Your task to perform on an android device: delete browsing data in the chrome app Image 0: 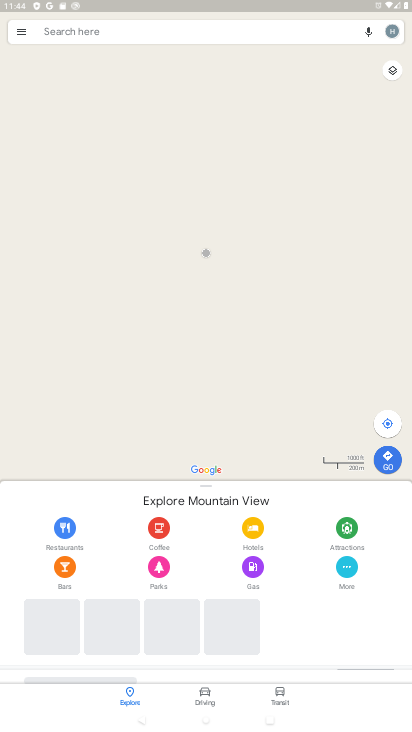
Step 0: press home button
Your task to perform on an android device: delete browsing data in the chrome app Image 1: 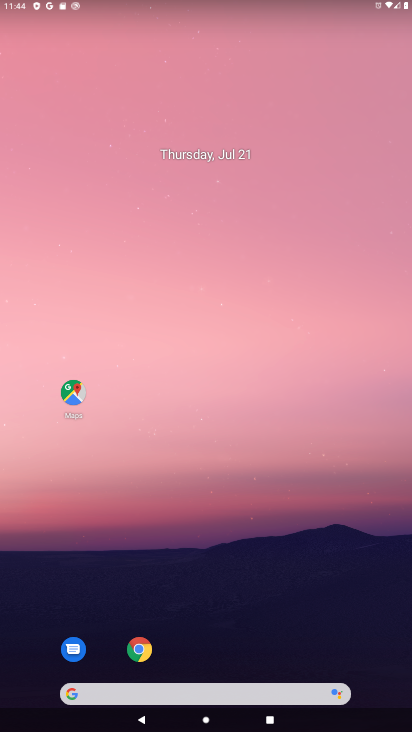
Step 1: drag from (292, 614) to (237, 126)
Your task to perform on an android device: delete browsing data in the chrome app Image 2: 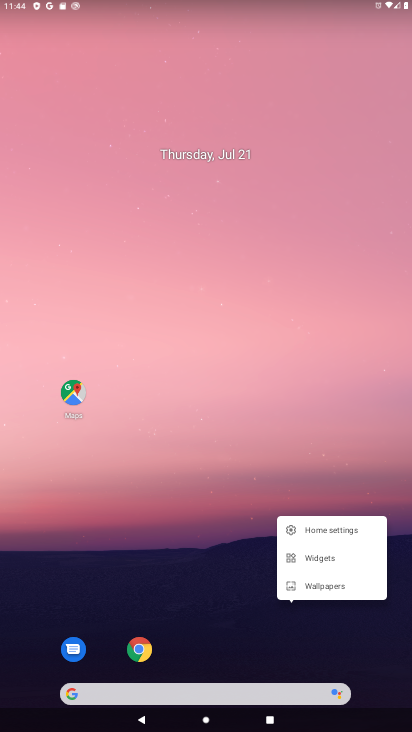
Step 2: click (209, 484)
Your task to perform on an android device: delete browsing data in the chrome app Image 3: 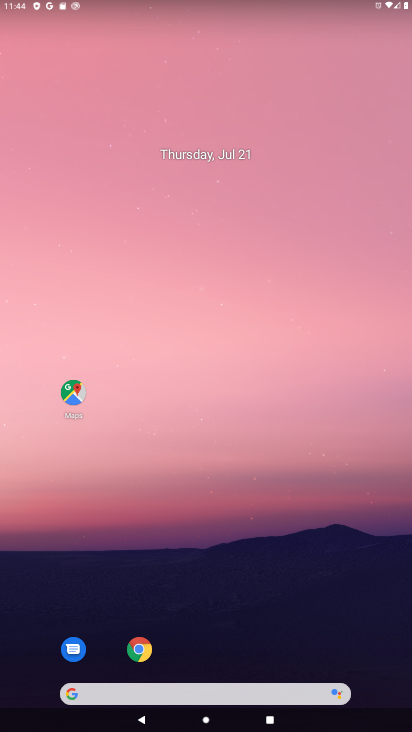
Step 3: drag from (254, 631) to (239, 102)
Your task to perform on an android device: delete browsing data in the chrome app Image 4: 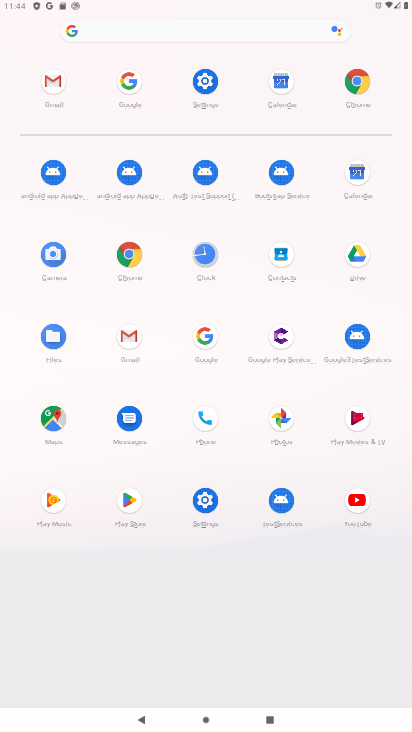
Step 4: click (130, 255)
Your task to perform on an android device: delete browsing data in the chrome app Image 5: 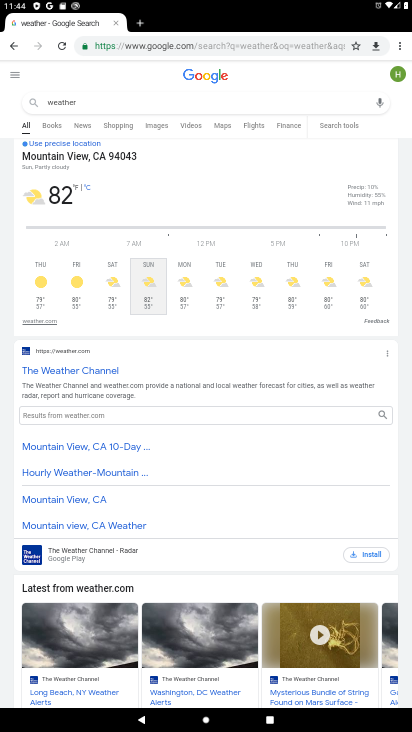
Step 5: drag from (402, 42) to (303, 162)
Your task to perform on an android device: delete browsing data in the chrome app Image 6: 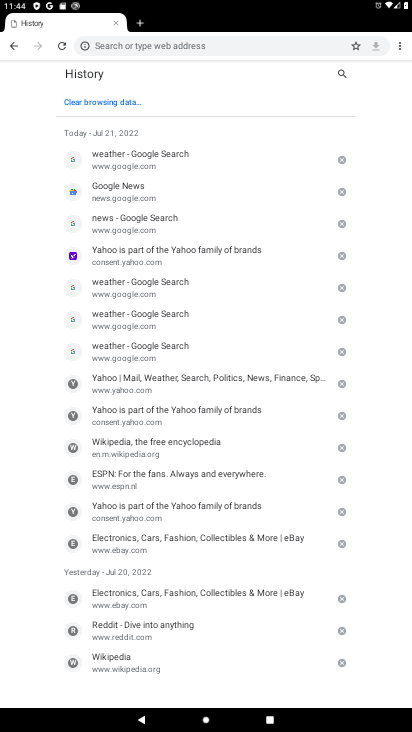
Step 6: click (88, 103)
Your task to perform on an android device: delete browsing data in the chrome app Image 7: 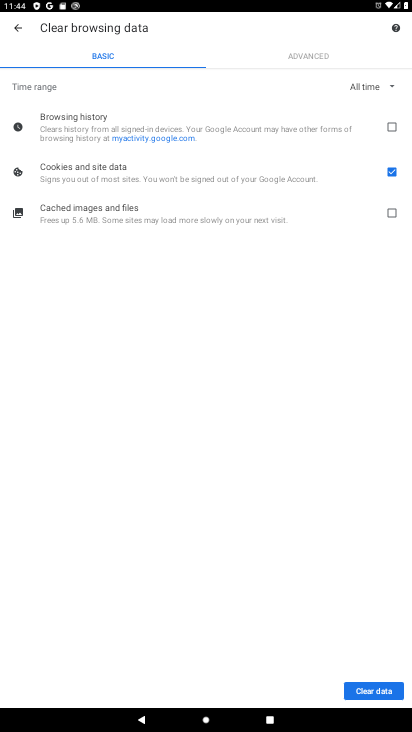
Step 7: click (392, 129)
Your task to perform on an android device: delete browsing data in the chrome app Image 8: 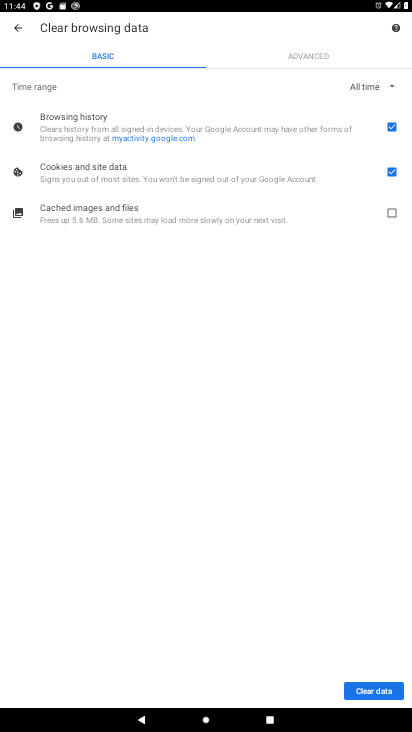
Step 8: click (383, 686)
Your task to perform on an android device: delete browsing data in the chrome app Image 9: 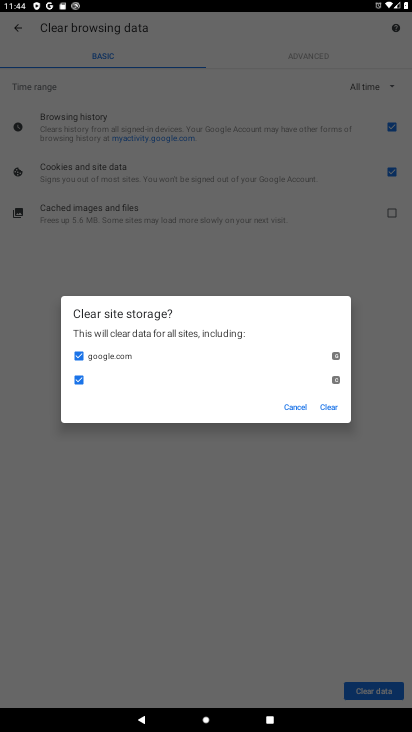
Step 9: click (335, 407)
Your task to perform on an android device: delete browsing data in the chrome app Image 10: 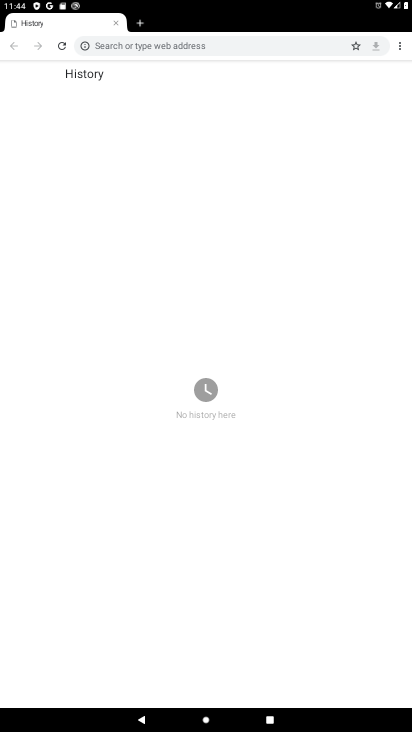
Step 10: task complete